Your task to perform on an android device: Search for seafood restaurants on Google Maps Image 0: 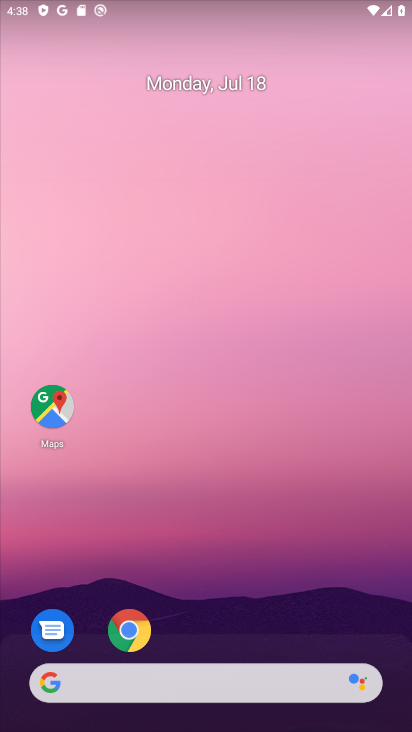
Step 0: click (52, 399)
Your task to perform on an android device: Search for seafood restaurants on Google Maps Image 1: 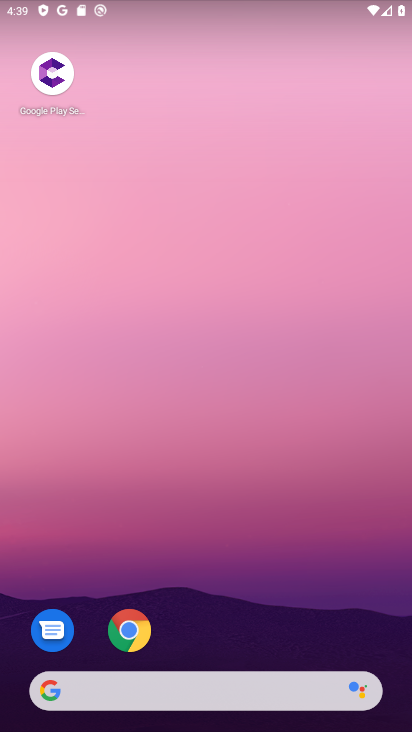
Step 1: drag from (20, 367) to (387, 385)
Your task to perform on an android device: Search for seafood restaurants on Google Maps Image 2: 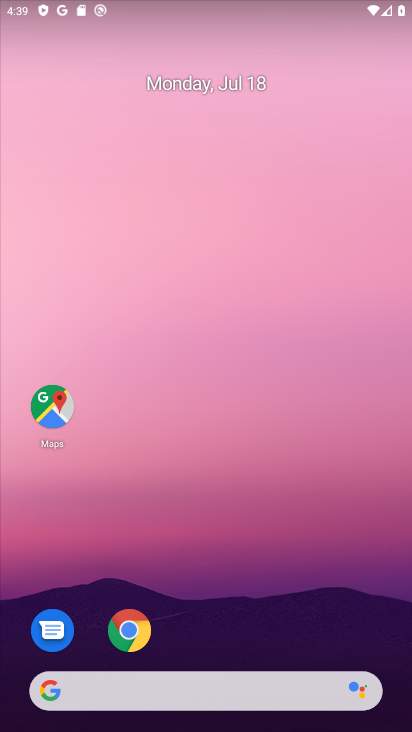
Step 2: click (51, 408)
Your task to perform on an android device: Search for seafood restaurants on Google Maps Image 3: 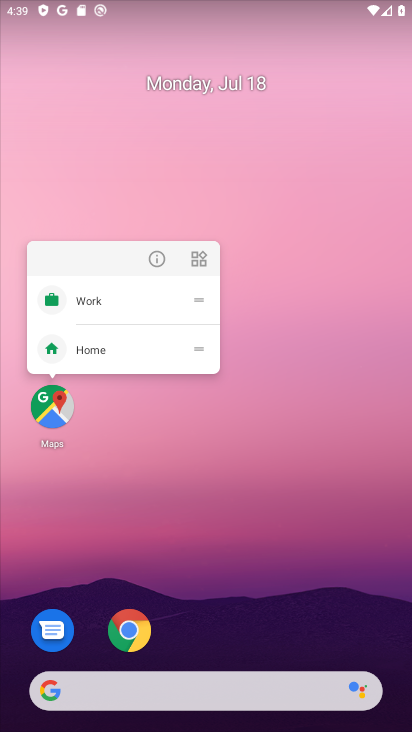
Step 3: click (48, 404)
Your task to perform on an android device: Search for seafood restaurants on Google Maps Image 4: 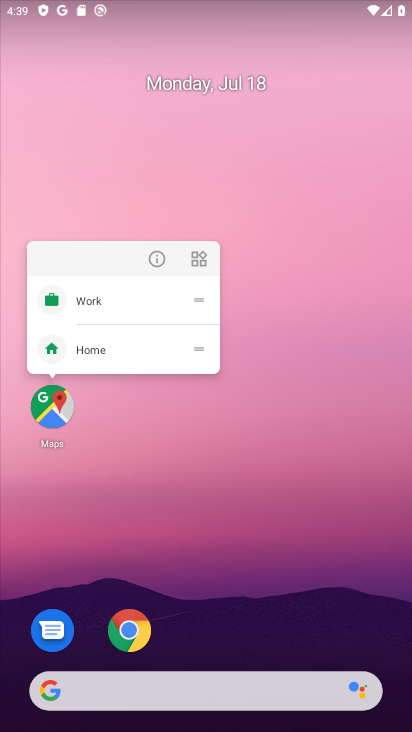
Step 4: click (59, 404)
Your task to perform on an android device: Search for seafood restaurants on Google Maps Image 5: 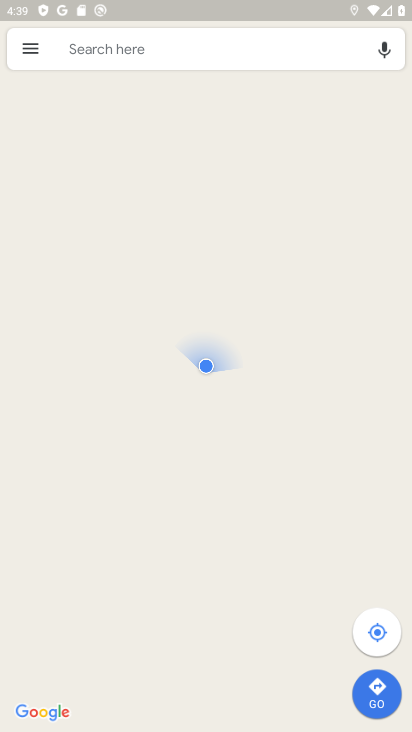
Step 5: click (131, 41)
Your task to perform on an android device: Search for seafood restaurants on Google Maps Image 6: 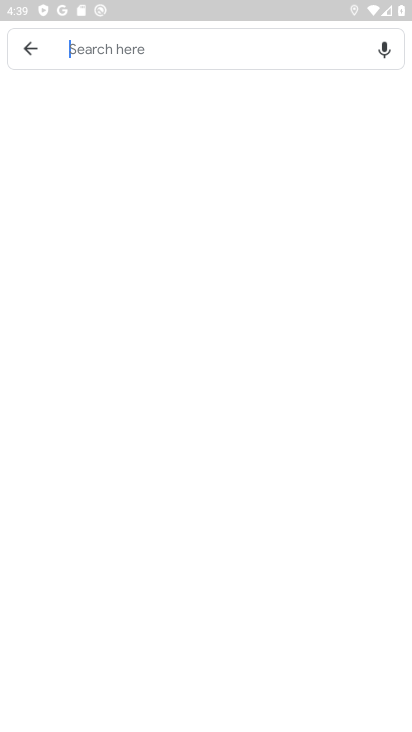
Step 6: click (102, 43)
Your task to perform on an android device: Search for seafood restaurants on Google Maps Image 7: 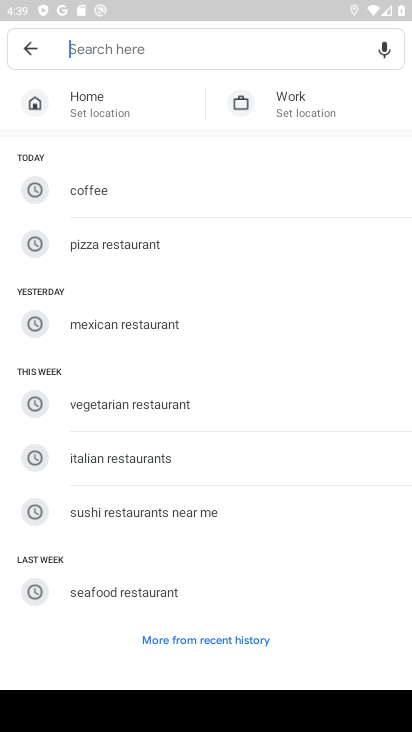
Step 7: type "seafood"
Your task to perform on an android device: Search for seafood restaurants on Google Maps Image 8: 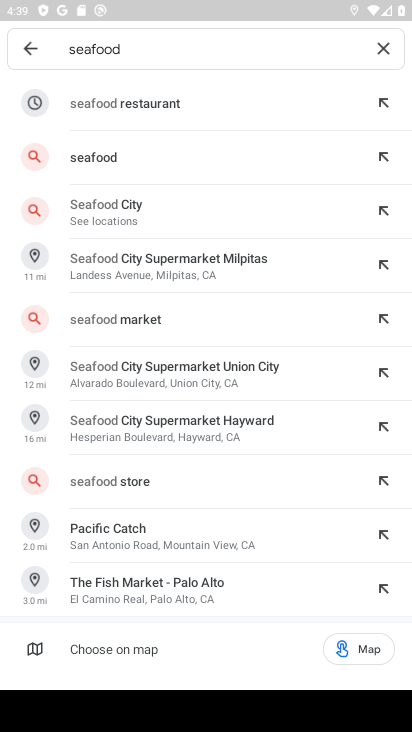
Step 8: click (119, 102)
Your task to perform on an android device: Search for seafood restaurants on Google Maps Image 9: 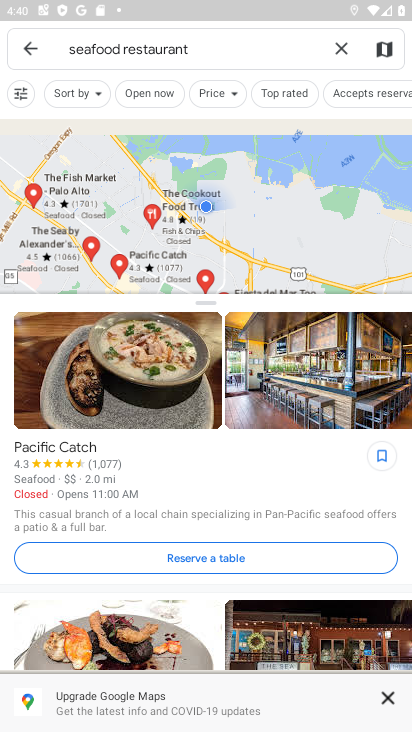
Step 9: task complete